Your task to perform on an android device: change the clock display to show seconds Image 0: 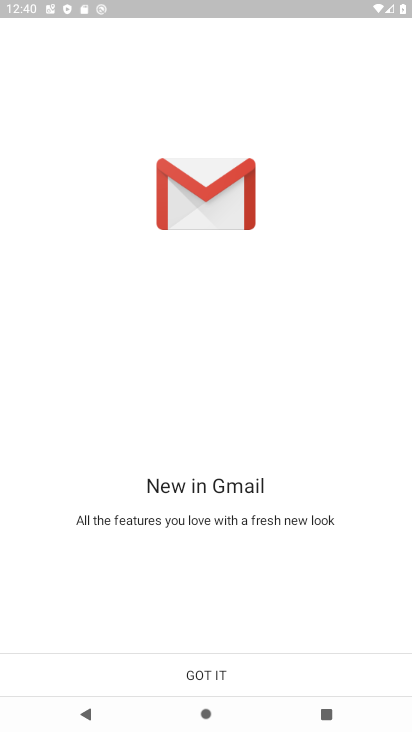
Step 0: press home button
Your task to perform on an android device: change the clock display to show seconds Image 1: 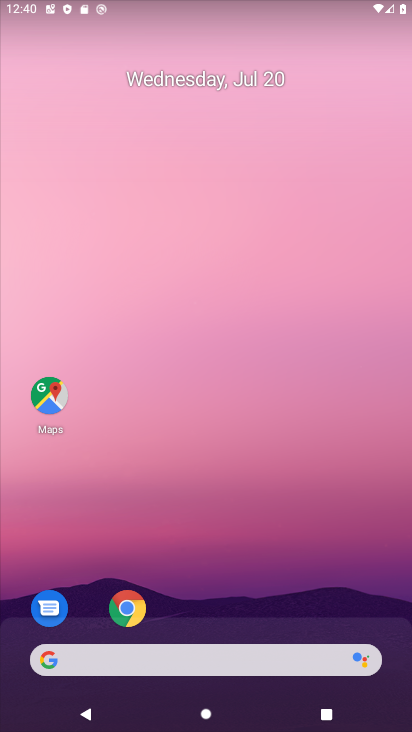
Step 1: drag from (126, 611) to (250, 50)
Your task to perform on an android device: change the clock display to show seconds Image 2: 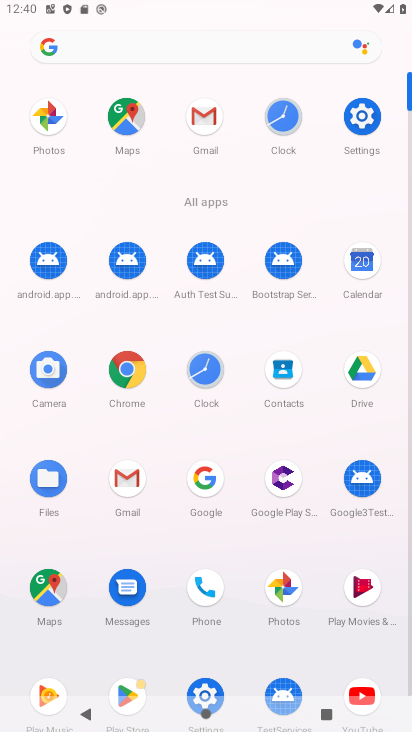
Step 2: click (198, 374)
Your task to perform on an android device: change the clock display to show seconds Image 3: 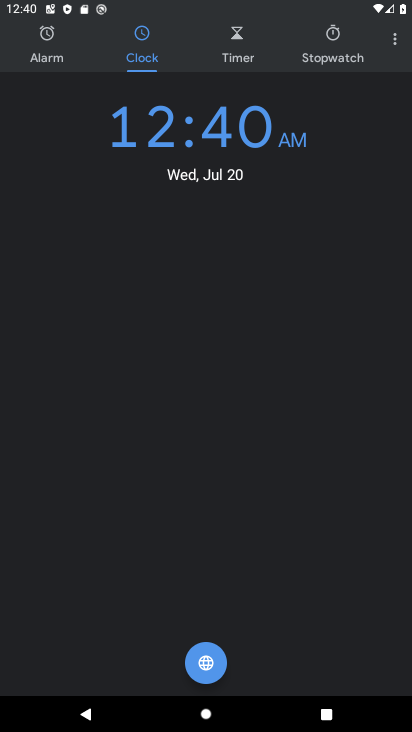
Step 3: click (395, 45)
Your task to perform on an android device: change the clock display to show seconds Image 4: 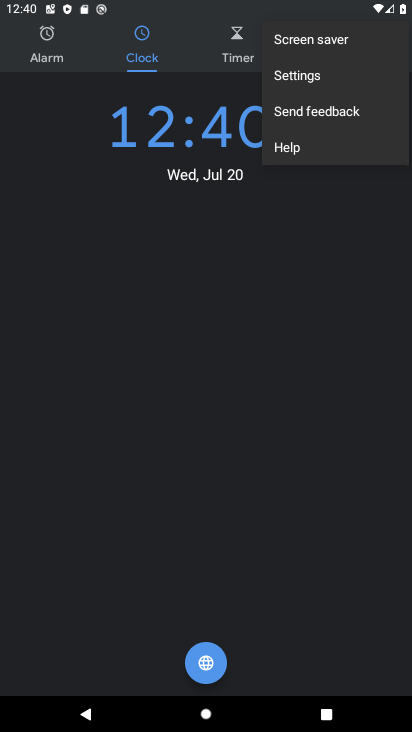
Step 4: click (357, 72)
Your task to perform on an android device: change the clock display to show seconds Image 5: 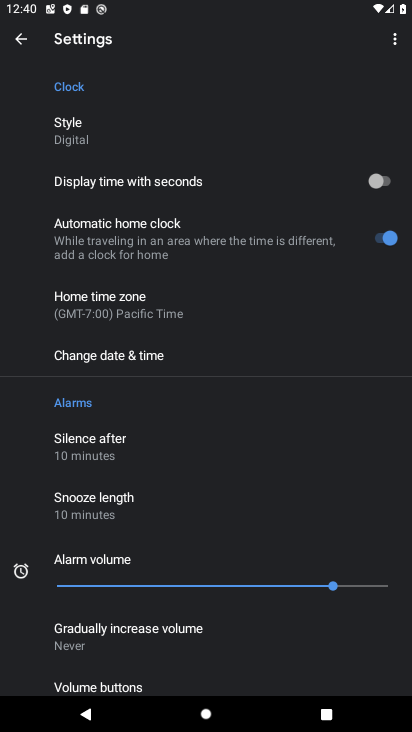
Step 5: click (383, 176)
Your task to perform on an android device: change the clock display to show seconds Image 6: 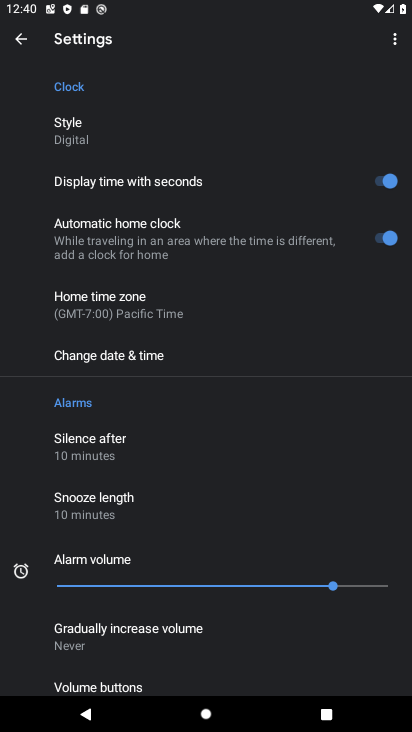
Step 6: task complete